Your task to perform on an android device: star an email in the gmail app Image 0: 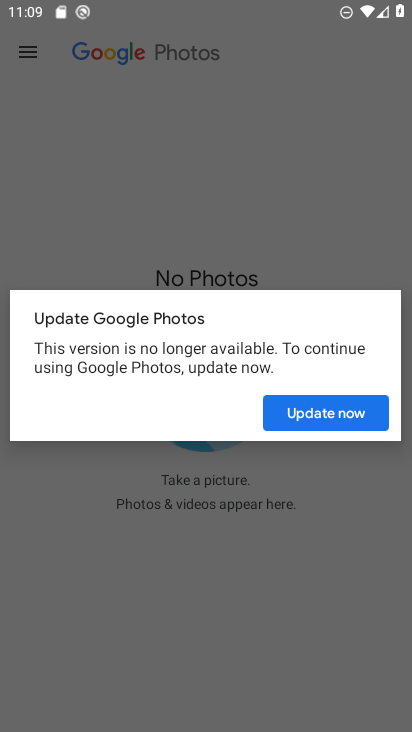
Step 0: press home button
Your task to perform on an android device: star an email in the gmail app Image 1: 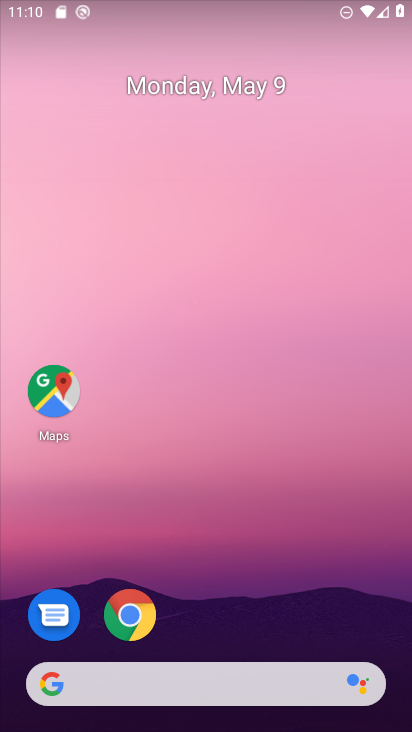
Step 1: drag from (193, 699) to (219, 166)
Your task to perform on an android device: star an email in the gmail app Image 2: 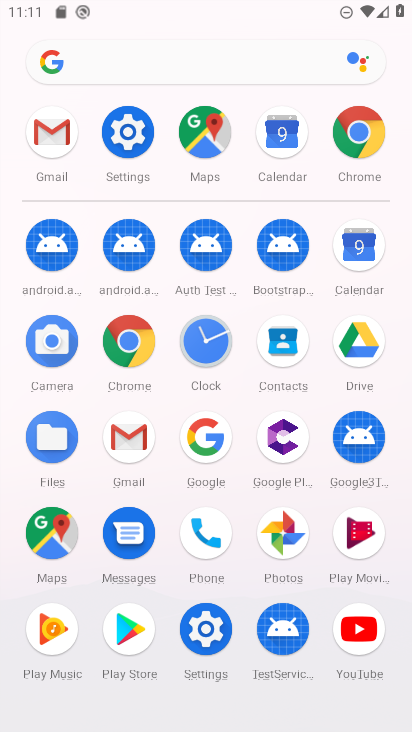
Step 2: click (52, 138)
Your task to perform on an android device: star an email in the gmail app Image 3: 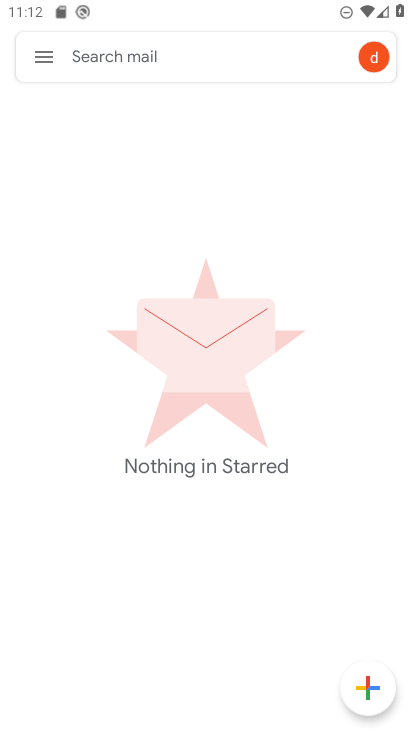
Step 3: click (40, 63)
Your task to perform on an android device: star an email in the gmail app Image 4: 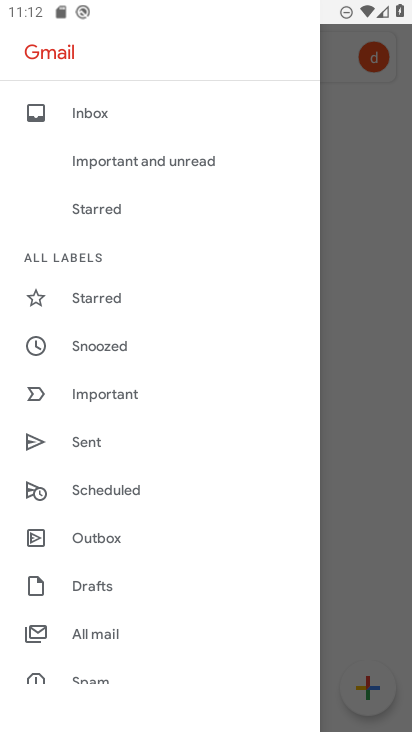
Step 4: click (111, 296)
Your task to perform on an android device: star an email in the gmail app Image 5: 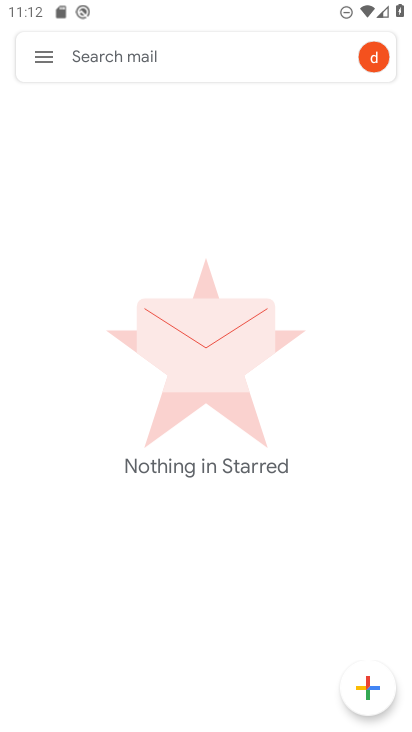
Step 5: task complete